Your task to perform on an android device: add a contact in the contacts app Image 0: 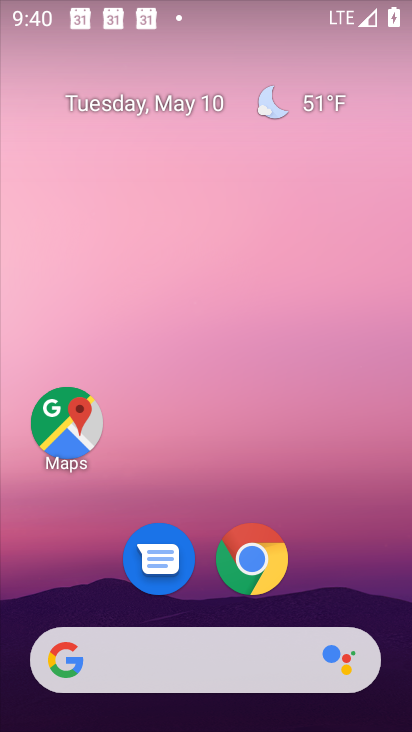
Step 0: drag from (334, 565) to (259, 38)
Your task to perform on an android device: add a contact in the contacts app Image 1: 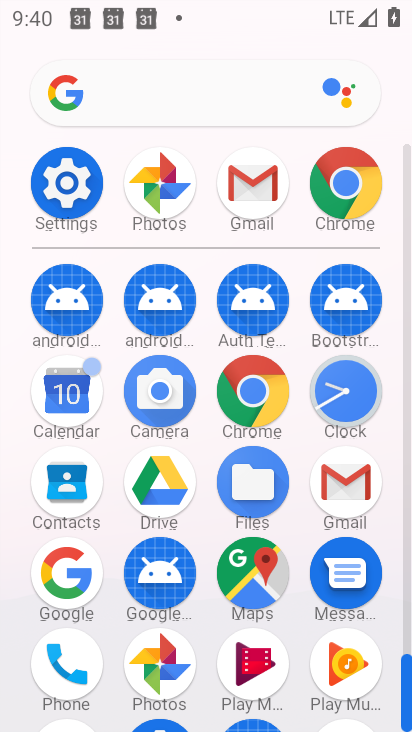
Step 1: click (68, 483)
Your task to perform on an android device: add a contact in the contacts app Image 2: 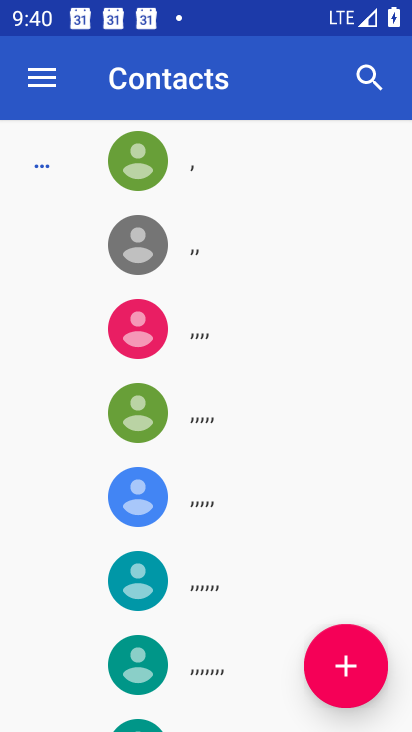
Step 2: click (351, 669)
Your task to perform on an android device: add a contact in the contacts app Image 3: 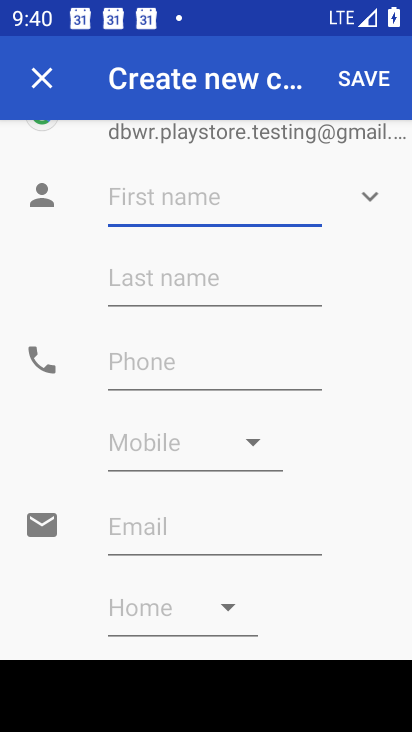
Step 3: click (194, 197)
Your task to perform on an android device: add a contact in the contacts app Image 4: 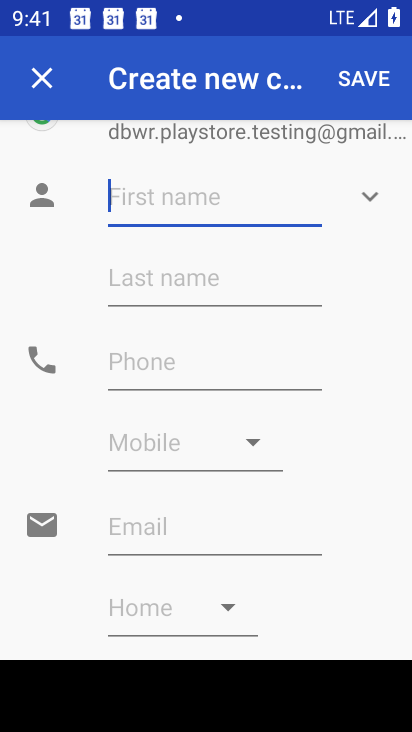
Step 4: type "Sanath"
Your task to perform on an android device: add a contact in the contacts app Image 5: 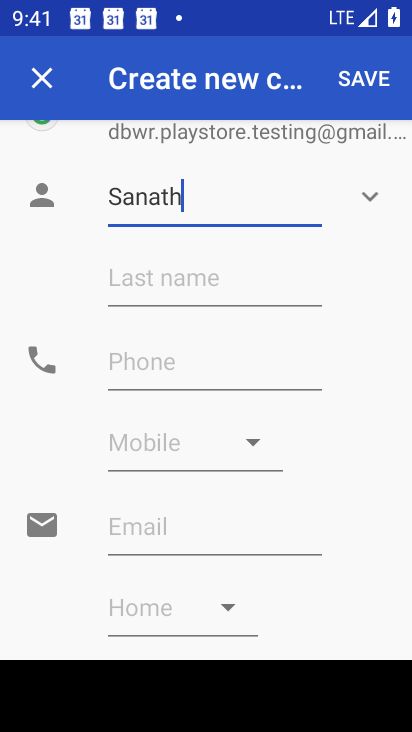
Step 5: click (181, 272)
Your task to perform on an android device: add a contact in the contacts app Image 6: 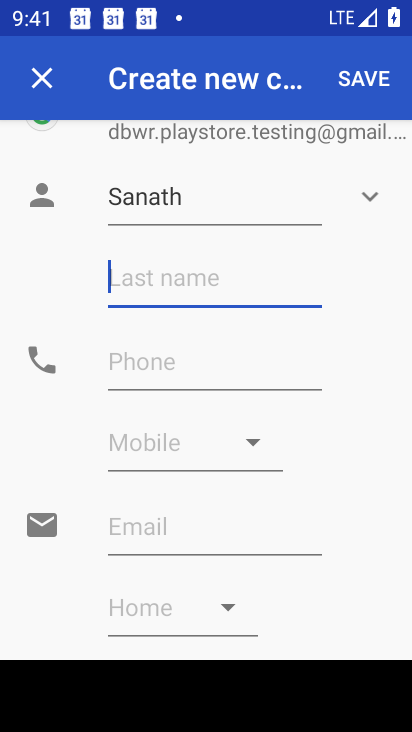
Step 6: type "Jayasurya"
Your task to perform on an android device: add a contact in the contacts app Image 7: 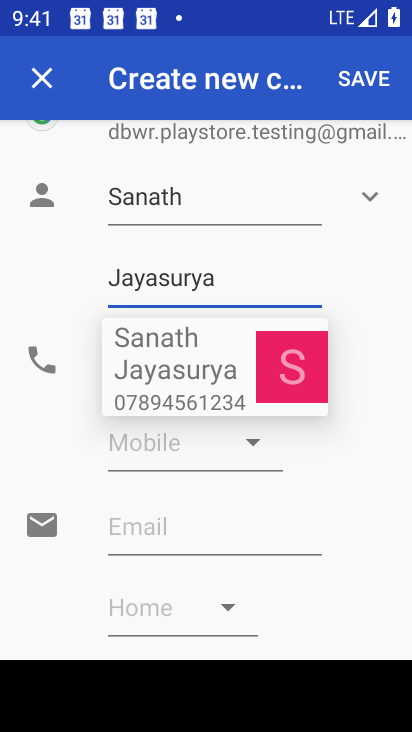
Step 7: click (200, 389)
Your task to perform on an android device: add a contact in the contacts app Image 8: 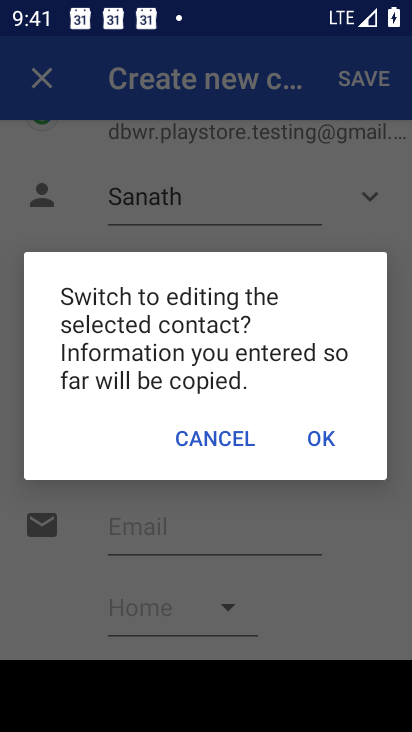
Step 8: click (314, 436)
Your task to perform on an android device: add a contact in the contacts app Image 9: 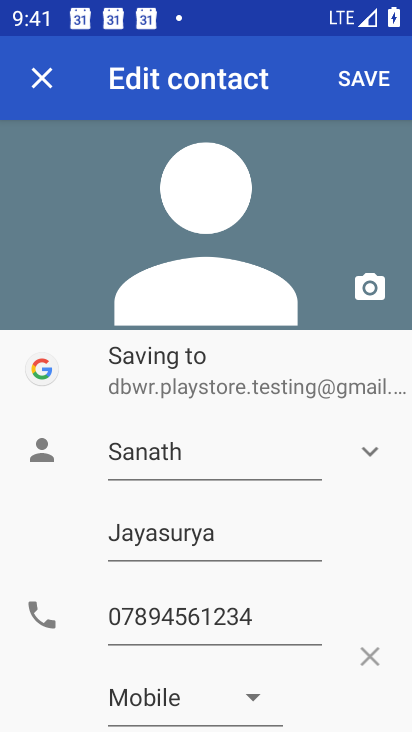
Step 9: click (376, 85)
Your task to perform on an android device: add a contact in the contacts app Image 10: 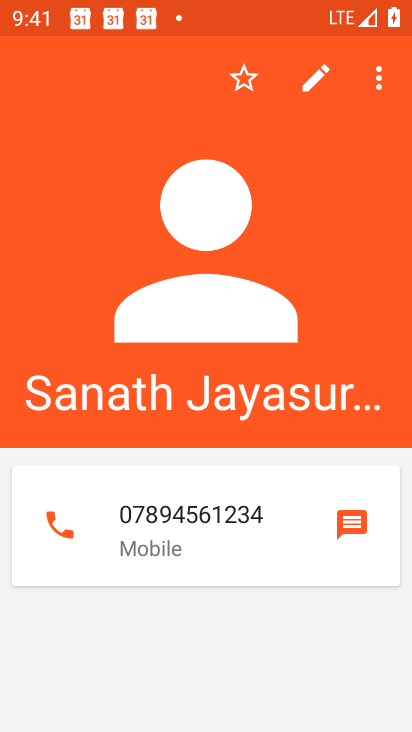
Step 10: task complete